Your task to perform on an android device: Show me popular games on the Play Store Image 0: 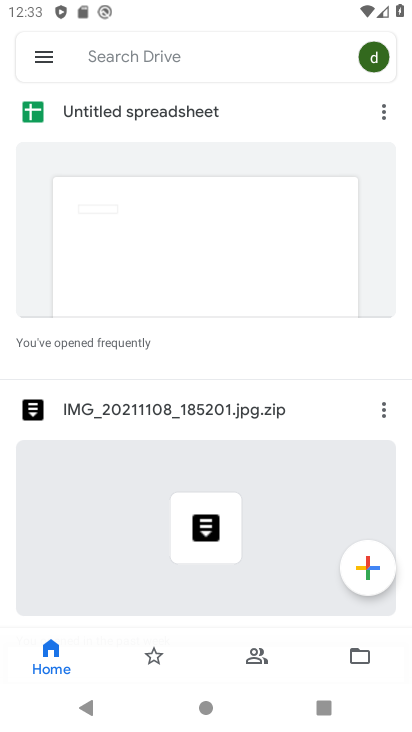
Step 0: press back button
Your task to perform on an android device: Show me popular games on the Play Store Image 1: 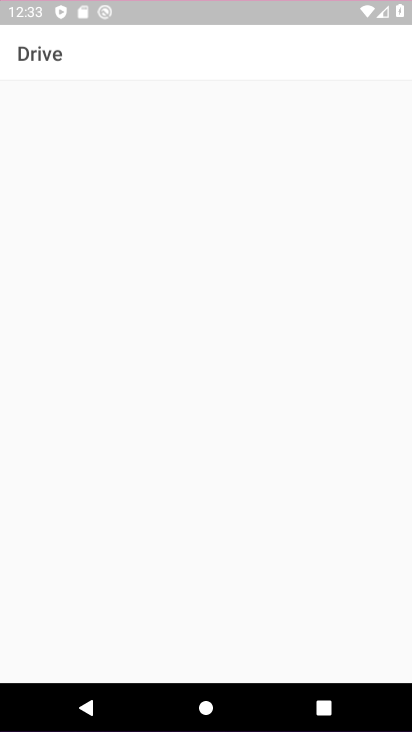
Step 1: press home button
Your task to perform on an android device: Show me popular games on the Play Store Image 2: 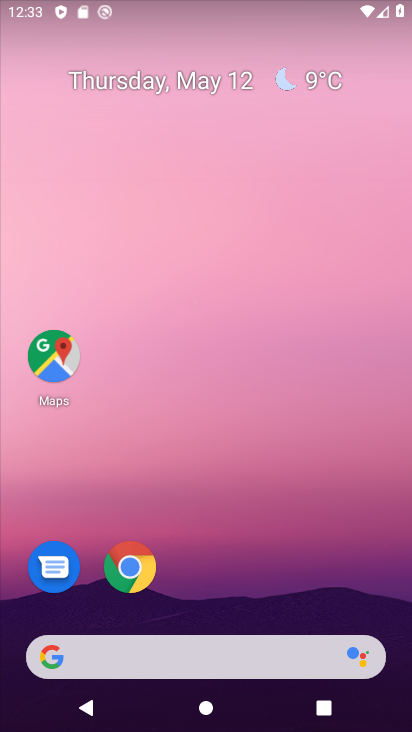
Step 2: drag from (167, 626) to (281, 118)
Your task to perform on an android device: Show me popular games on the Play Store Image 3: 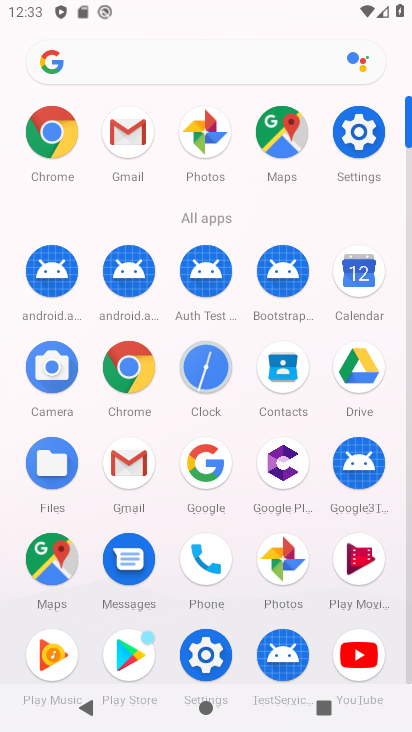
Step 3: click (137, 641)
Your task to perform on an android device: Show me popular games on the Play Store Image 4: 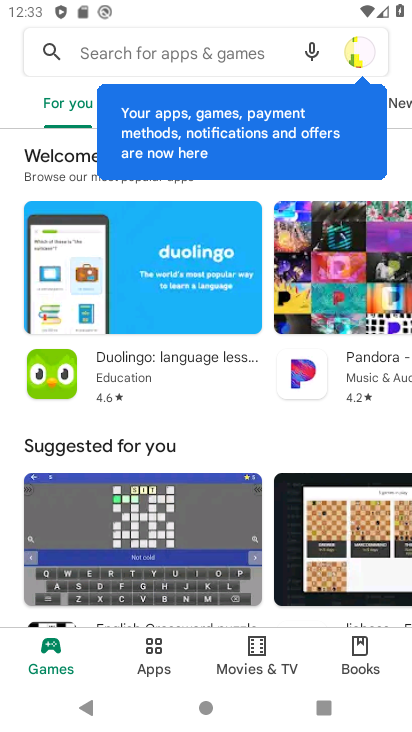
Step 4: drag from (176, 565) to (272, 200)
Your task to perform on an android device: Show me popular games on the Play Store Image 5: 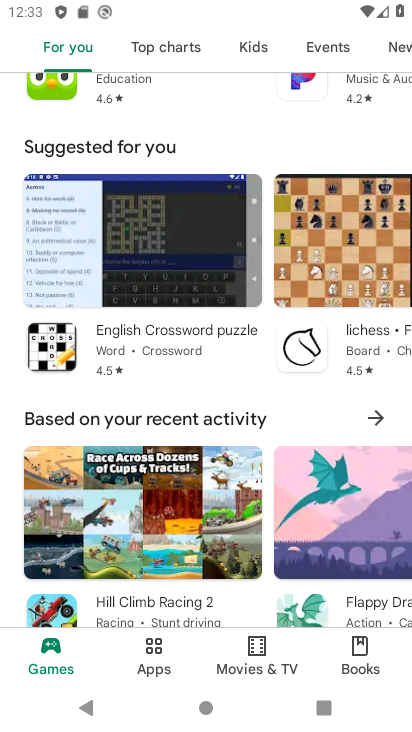
Step 5: drag from (154, 520) to (281, 59)
Your task to perform on an android device: Show me popular games on the Play Store Image 6: 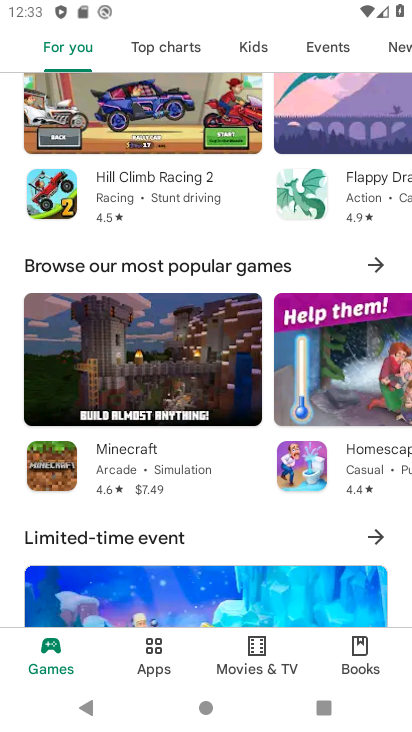
Step 6: click (377, 266)
Your task to perform on an android device: Show me popular games on the Play Store Image 7: 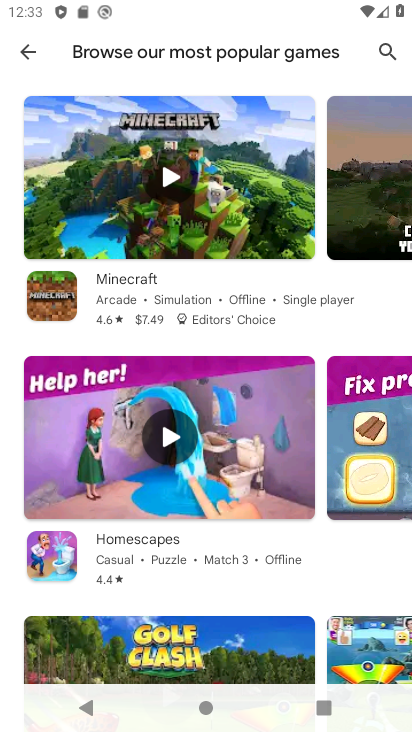
Step 7: task complete